Your task to perform on an android device: turn off javascript in the chrome app Image 0: 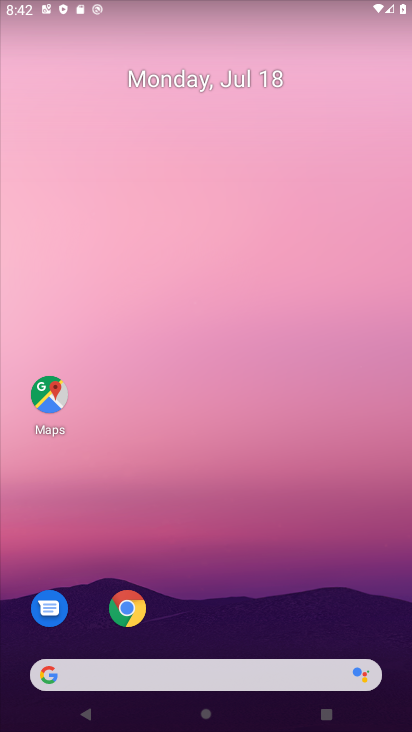
Step 0: click (124, 612)
Your task to perform on an android device: turn off javascript in the chrome app Image 1: 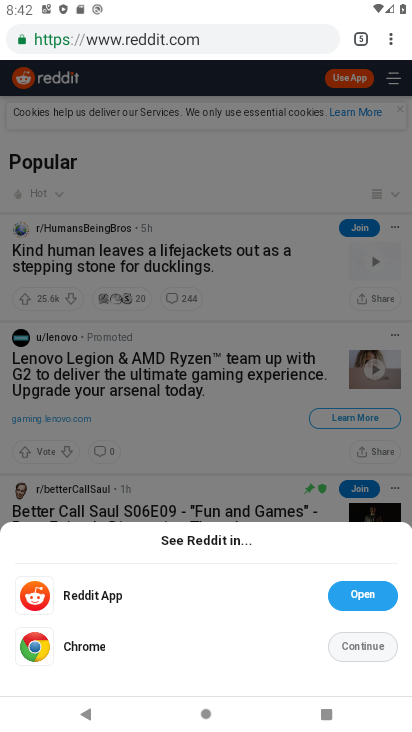
Step 1: click (392, 44)
Your task to perform on an android device: turn off javascript in the chrome app Image 2: 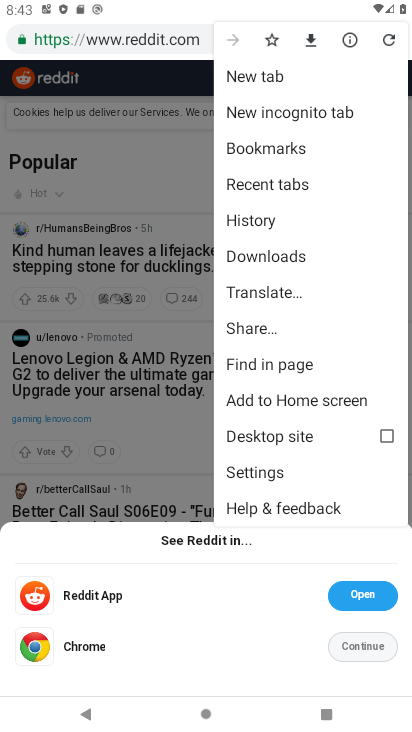
Step 2: click (252, 469)
Your task to perform on an android device: turn off javascript in the chrome app Image 3: 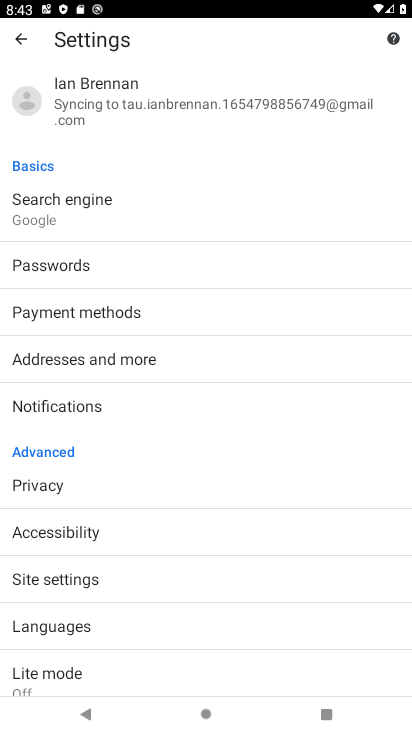
Step 3: click (88, 578)
Your task to perform on an android device: turn off javascript in the chrome app Image 4: 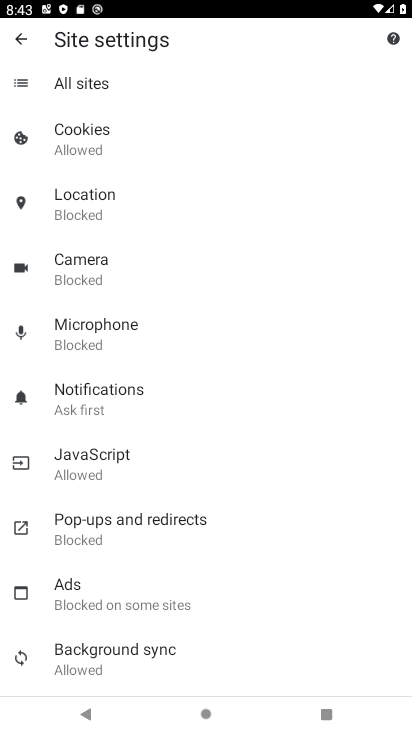
Step 4: click (87, 455)
Your task to perform on an android device: turn off javascript in the chrome app Image 5: 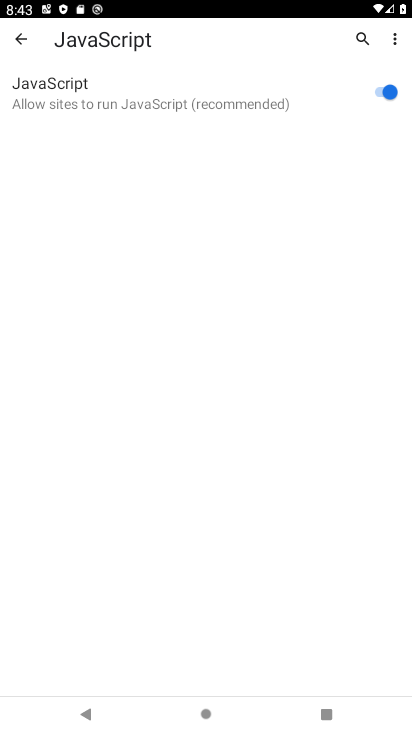
Step 5: click (388, 86)
Your task to perform on an android device: turn off javascript in the chrome app Image 6: 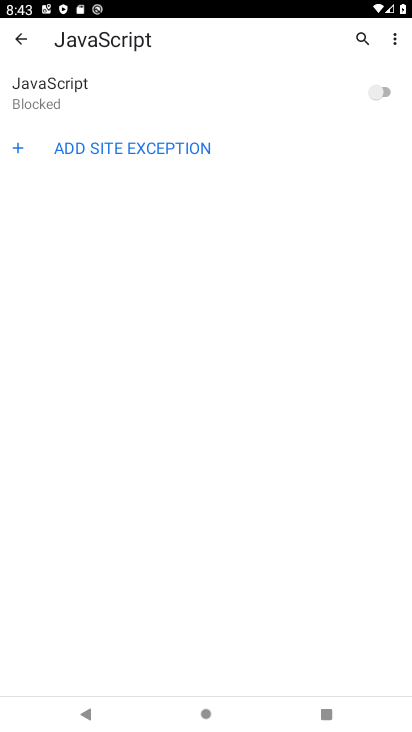
Step 6: task complete